Your task to perform on an android device: snooze an email in the gmail app Image 0: 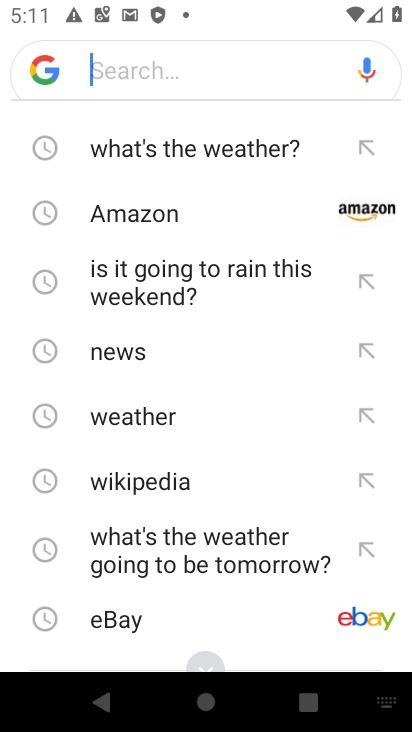
Step 0: press home button
Your task to perform on an android device: snooze an email in the gmail app Image 1: 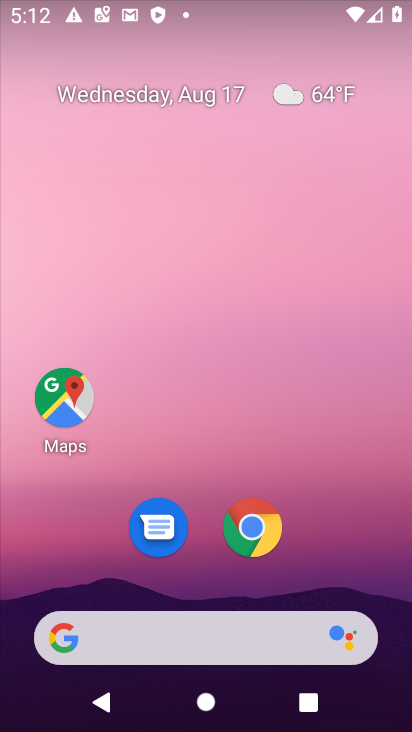
Step 1: drag from (157, 428) to (139, 253)
Your task to perform on an android device: snooze an email in the gmail app Image 2: 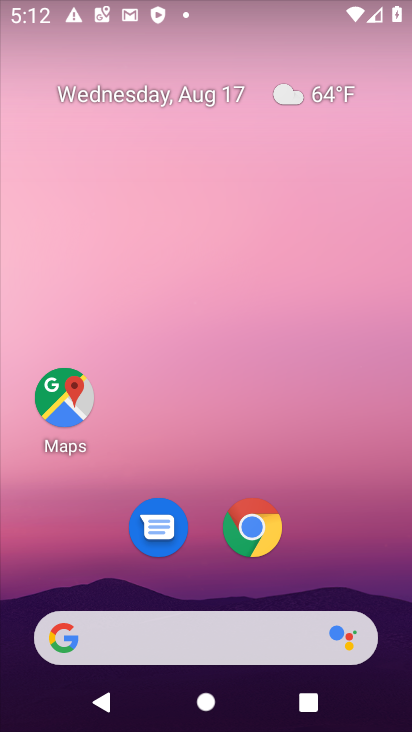
Step 2: drag from (187, 547) to (151, 156)
Your task to perform on an android device: snooze an email in the gmail app Image 3: 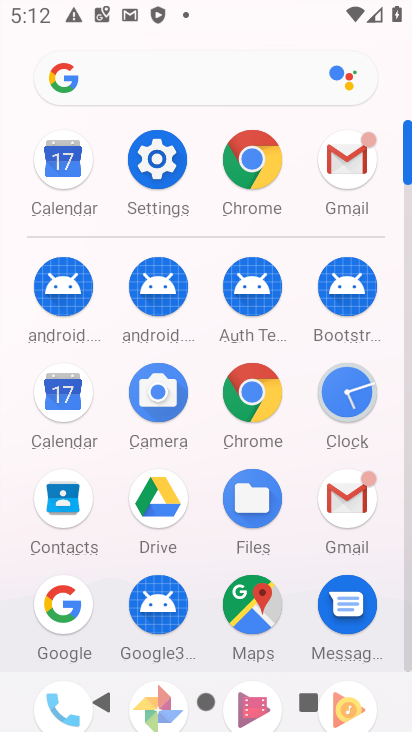
Step 3: click (359, 500)
Your task to perform on an android device: snooze an email in the gmail app Image 4: 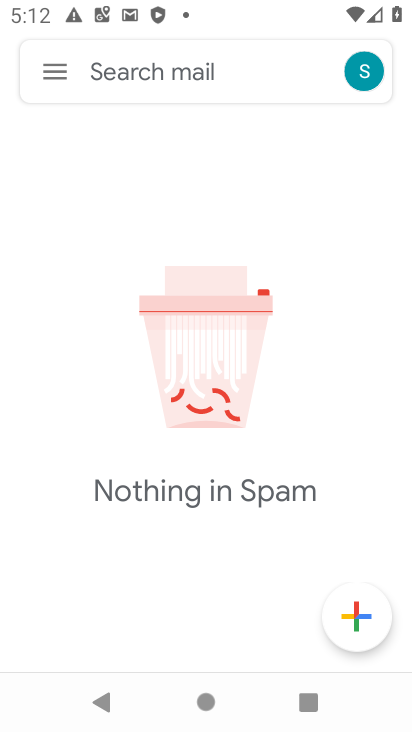
Step 4: click (63, 76)
Your task to perform on an android device: snooze an email in the gmail app Image 5: 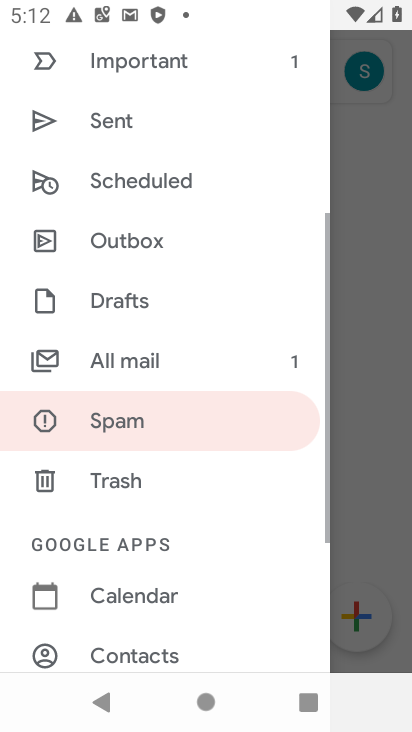
Step 5: drag from (119, 73) to (121, 605)
Your task to perform on an android device: snooze an email in the gmail app Image 6: 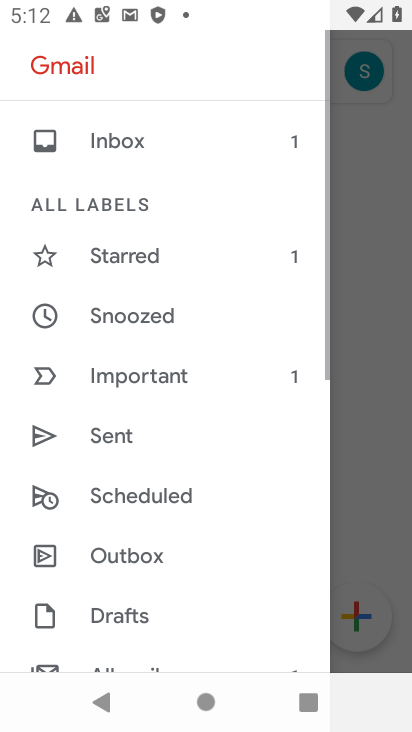
Step 6: click (96, 128)
Your task to perform on an android device: snooze an email in the gmail app Image 7: 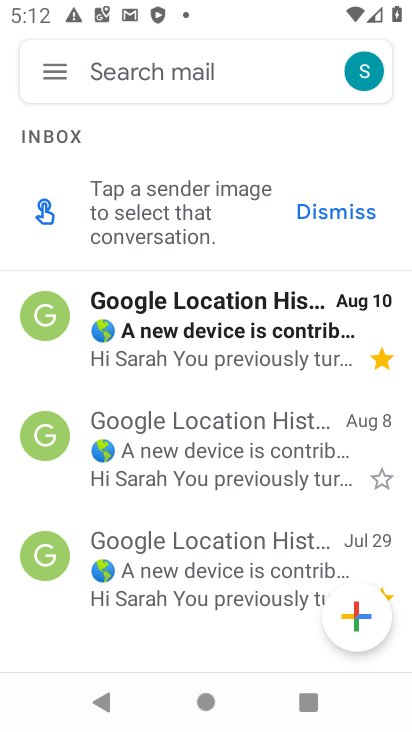
Step 7: click (185, 449)
Your task to perform on an android device: snooze an email in the gmail app Image 8: 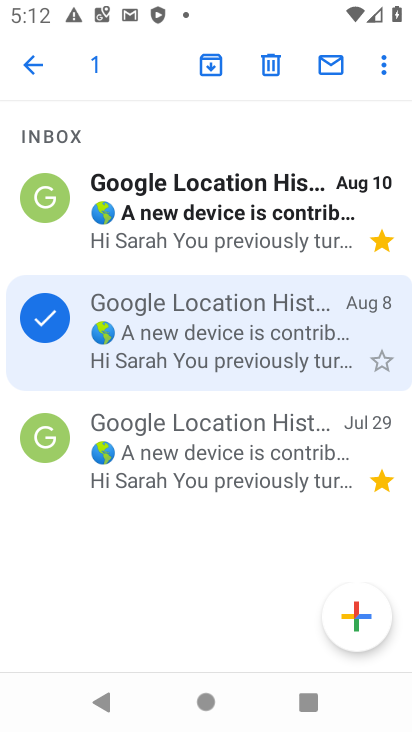
Step 8: click (381, 66)
Your task to perform on an android device: snooze an email in the gmail app Image 9: 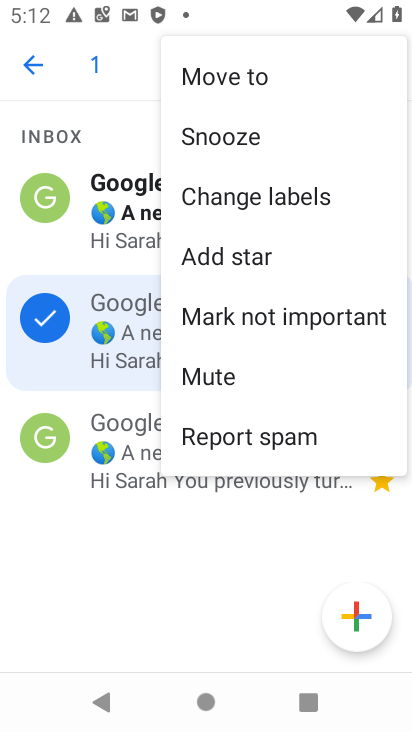
Step 9: click (235, 140)
Your task to perform on an android device: snooze an email in the gmail app Image 10: 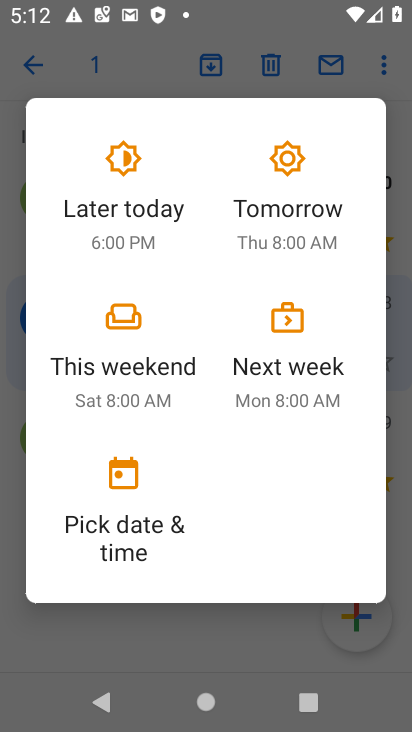
Step 10: click (117, 186)
Your task to perform on an android device: snooze an email in the gmail app Image 11: 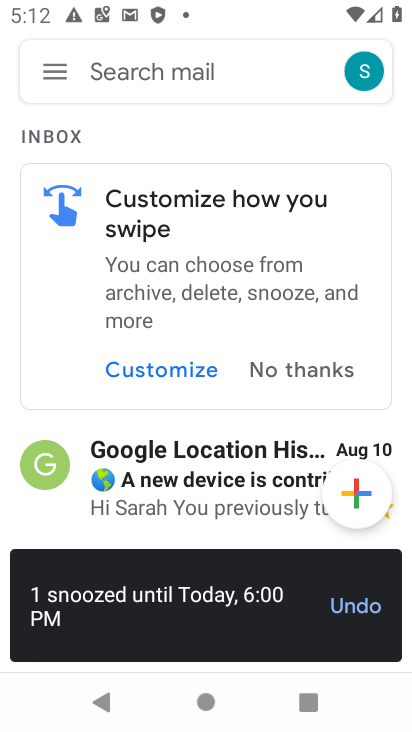
Step 11: task complete